Your task to perform on an android device: Open Yahoo.com Image 0: 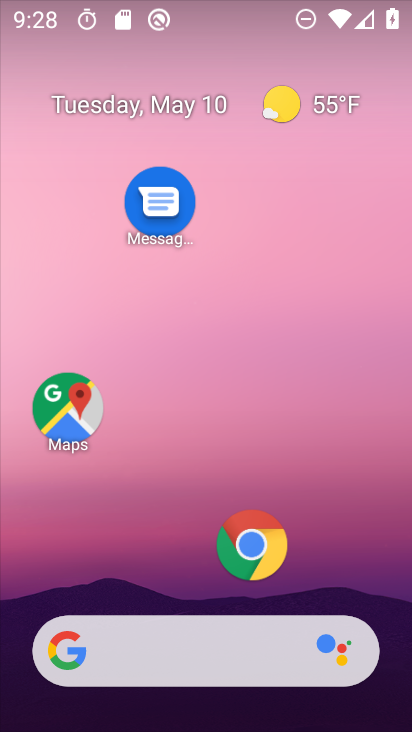
Step 0: click (255, 530)
Your task to perform on an android device: Open Yahoo.com Image 1: 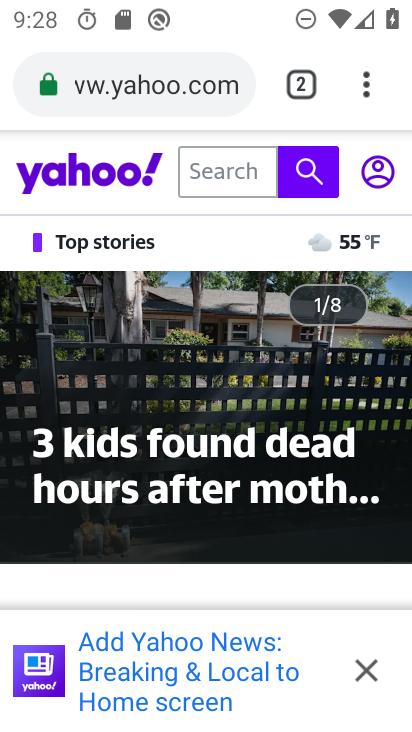
Step 1: task complete